Your task to perform on an android device: turn on the 24-hour format for clock Image 0: 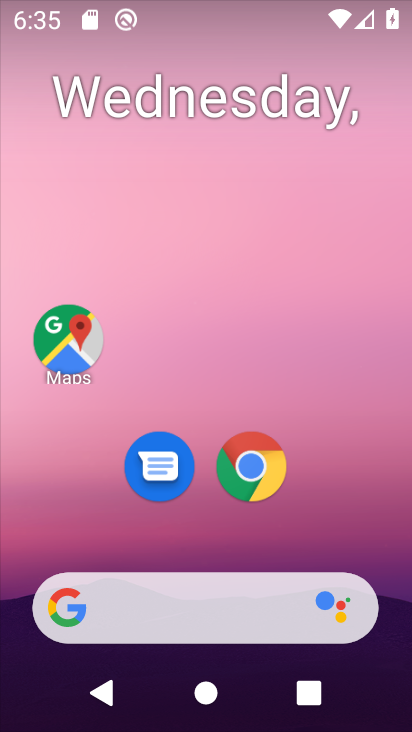
Step 0: drag from (354, 546) to (319, 119)
Your task to perform on an android device: turn on the 24-hour format for clock Image 1: 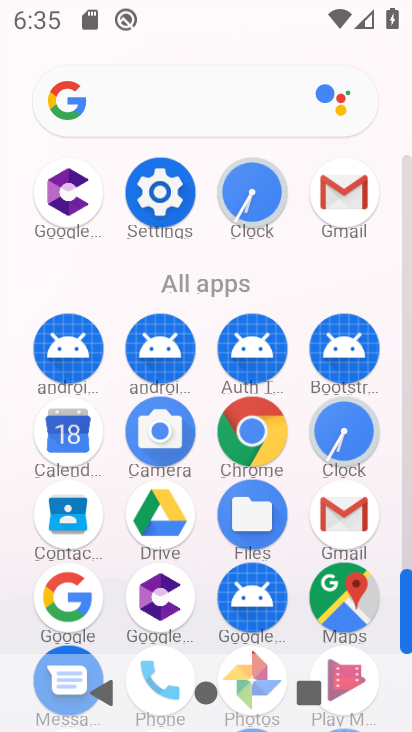
Step 1: click (238, 180)
Your task to perform on an android device: turn on the 24-hour format for clock Image 2: 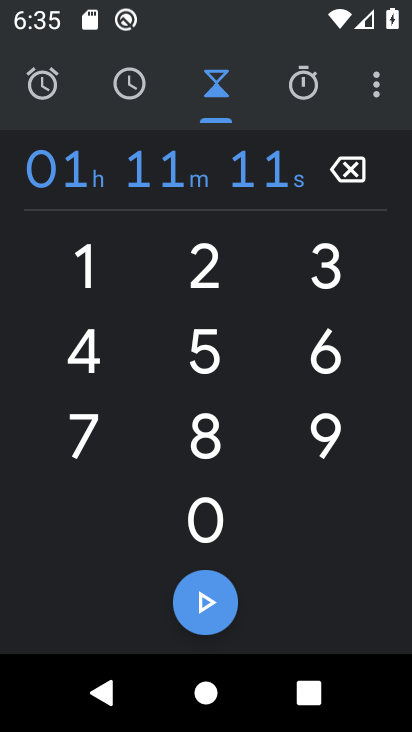
Step 2: click (375, 80)
Your task to perform on an android device: turn on the 24-hour format for clock Image 3: 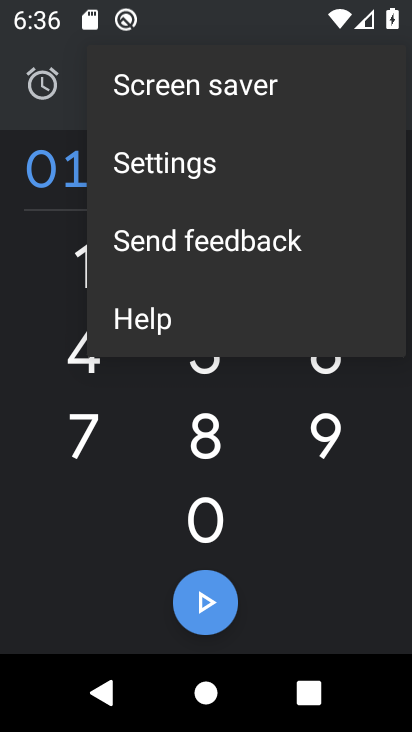
Step 3: click (173, 150)
Your task to perform on an android device: turn on the 24-hour format for clock Image 4: 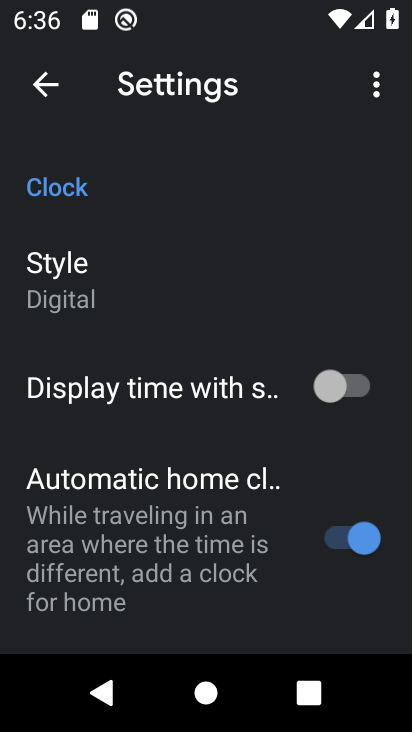
Step 4: drag from (178, 421) to (125, 148)
Your task to perform on an android device: turn on the 24-hour format for clock Image 5: 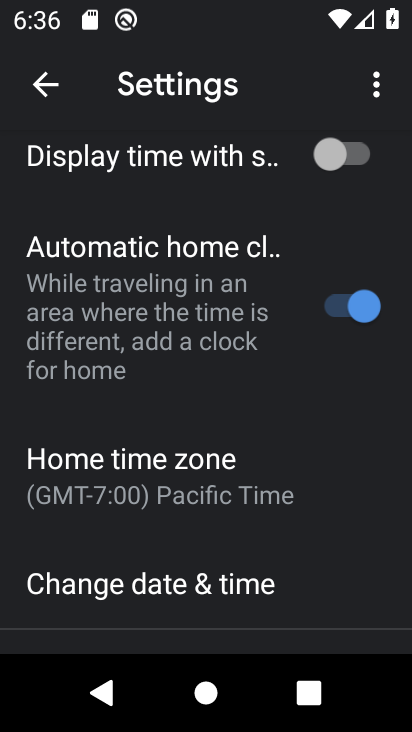
Step 5: click (184, 583)
Your task to perform on an android device: turn on the 24-hour format for clock Image 6: 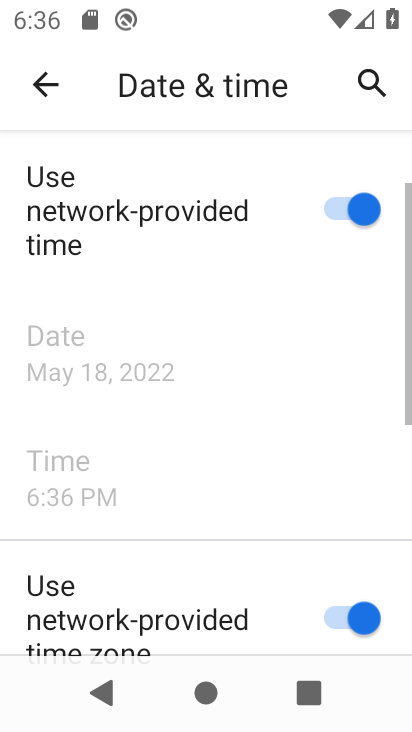
Step 6: drag from (251, 508) to (218, 197)
Your task to perform on an android device: turn on the 24-hour format for clock Image 7: 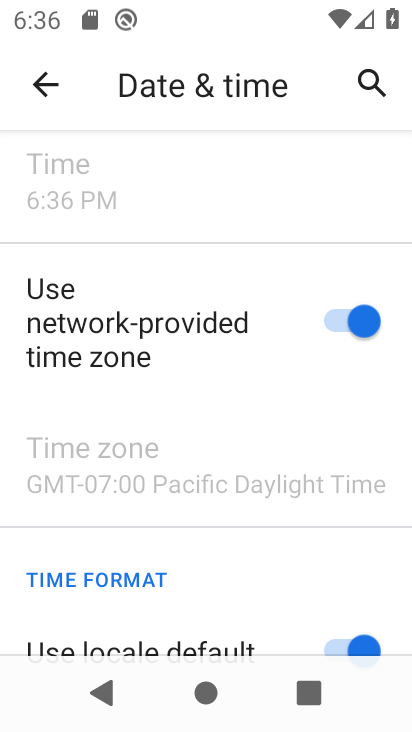
Step 7: drag from (256, 526) to (237, 253)
Your task to perform on an android device: turn on the 24-hour format for clock Image 8: 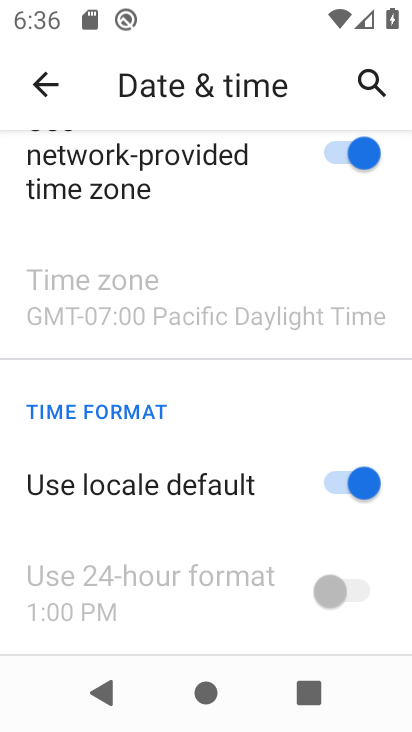
Step 8: click (348, 492)
Your task to perform on an android device: turn on the 24-hour format for clock Image 9: 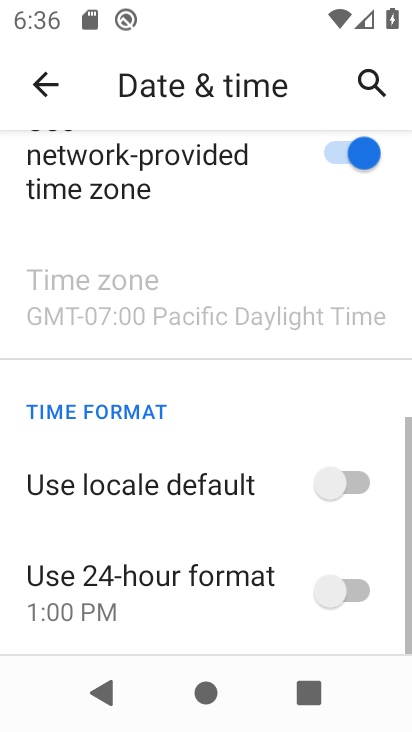
Step 9: click (331, 597)
Your task to perform on an android device: turn on the 24-hour format for clock Image 10: 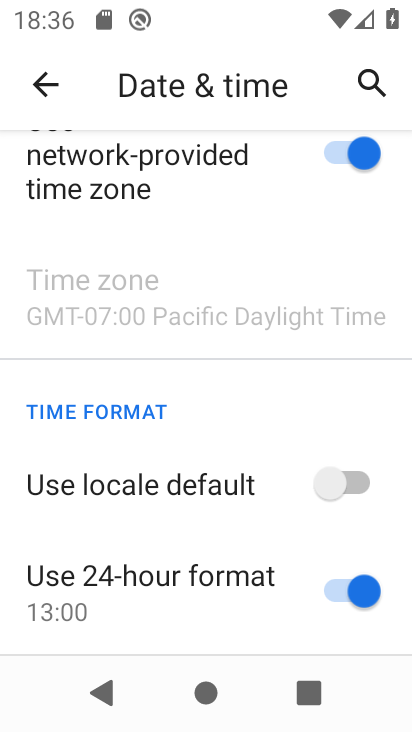
Step 10: task complete